Your task to perform on an android device: toggle location history Image 0: 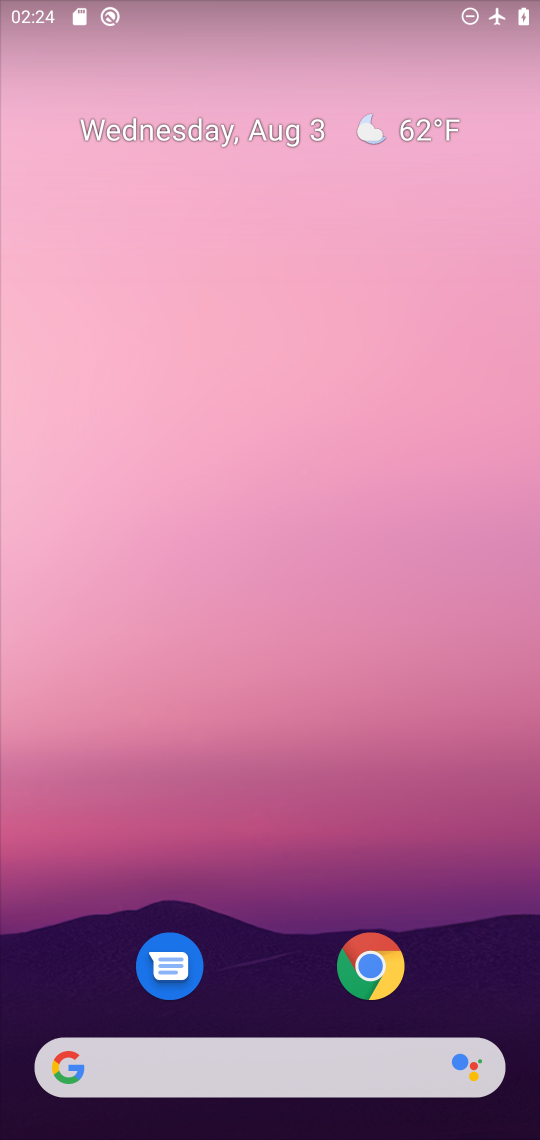
Step 0: drag from (279, 975) to (322, 451)
Your task to perform on an android device: toggle location history Image 1: 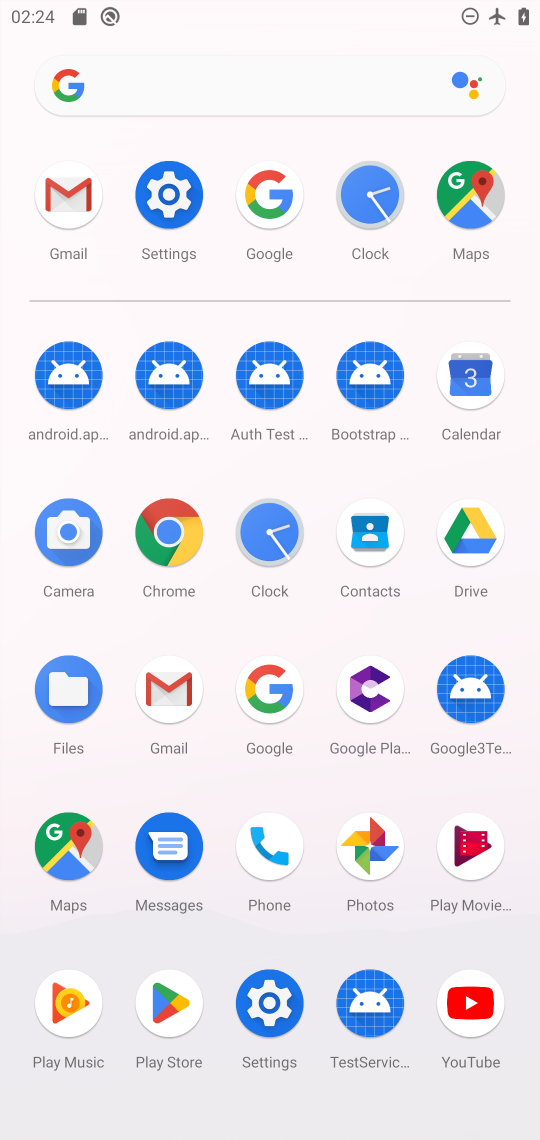
Step 1: click (161, 218)
Your task to perform on an android device: toggle location history Image 2: 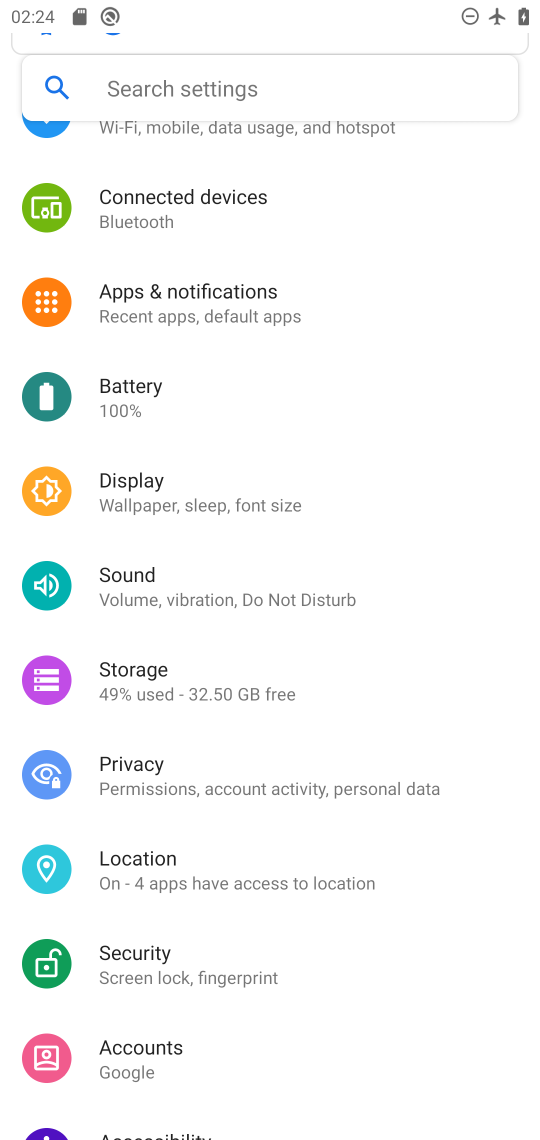
Step 2: click (238, 877)
Your task to perform on an android device: toggle location history Image 3: 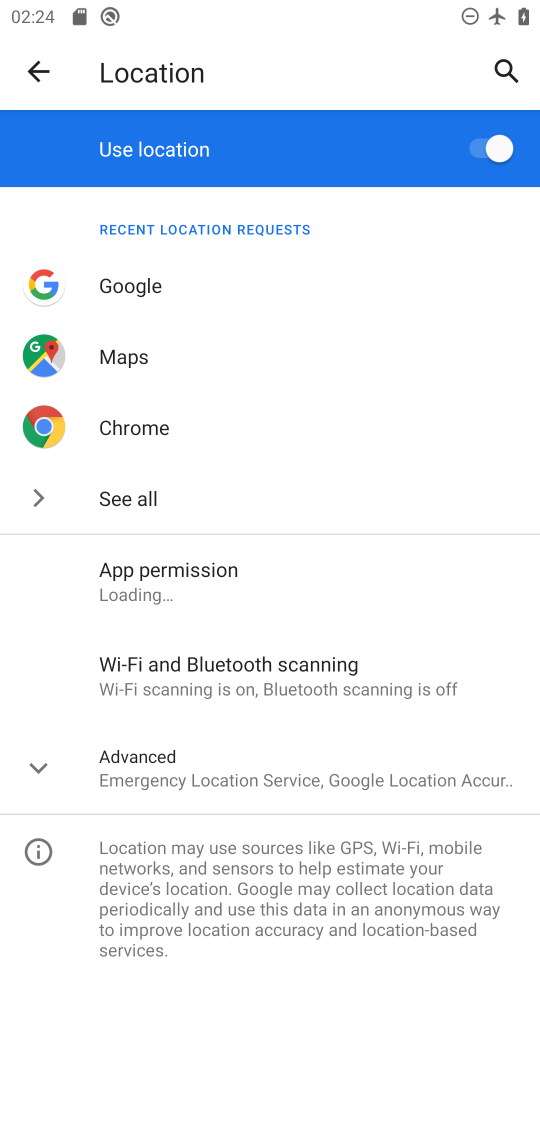
Step 3: click (237, 769)
Your task to perform on an android device: toggle location history Image 4: 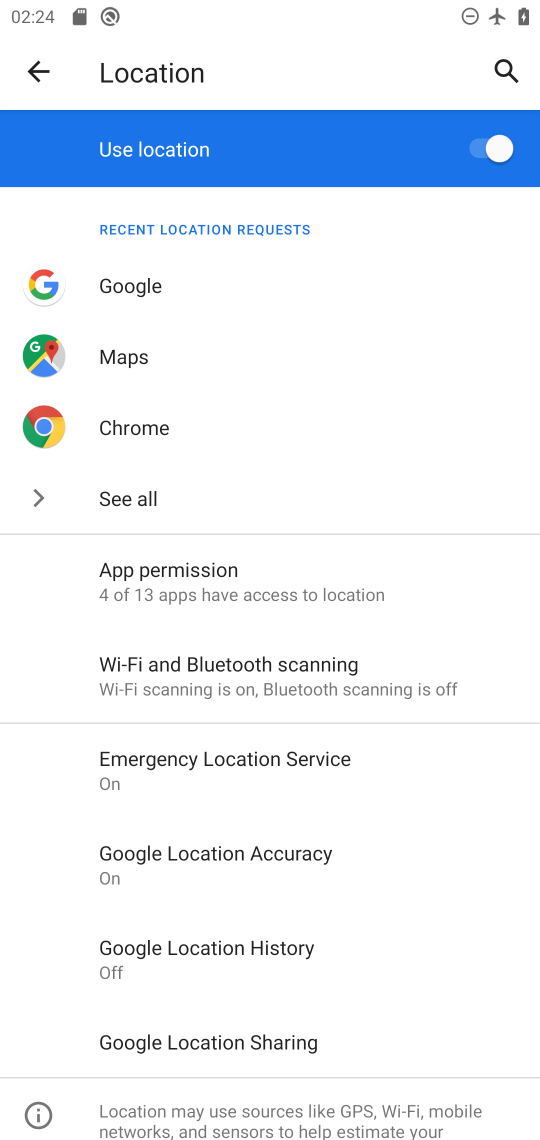
Step 4: click (282, 962)
Your task to perform on an android device: toggle location history Image 5: 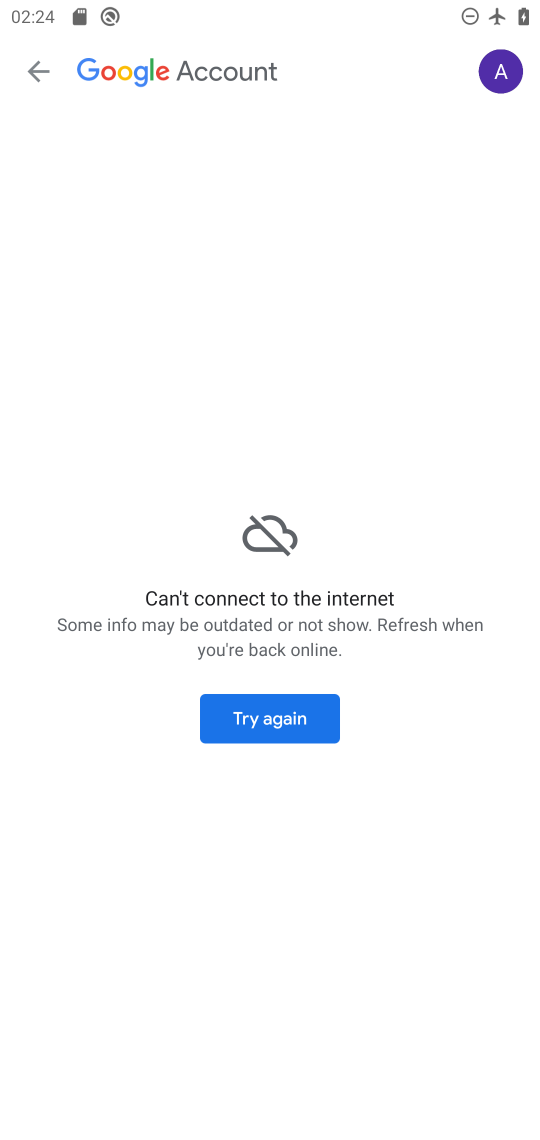
Step 5: task complete